Your task to perform on an android device: Add lenovo thinkpad to the cart on costco, then select checkout. Image 0: 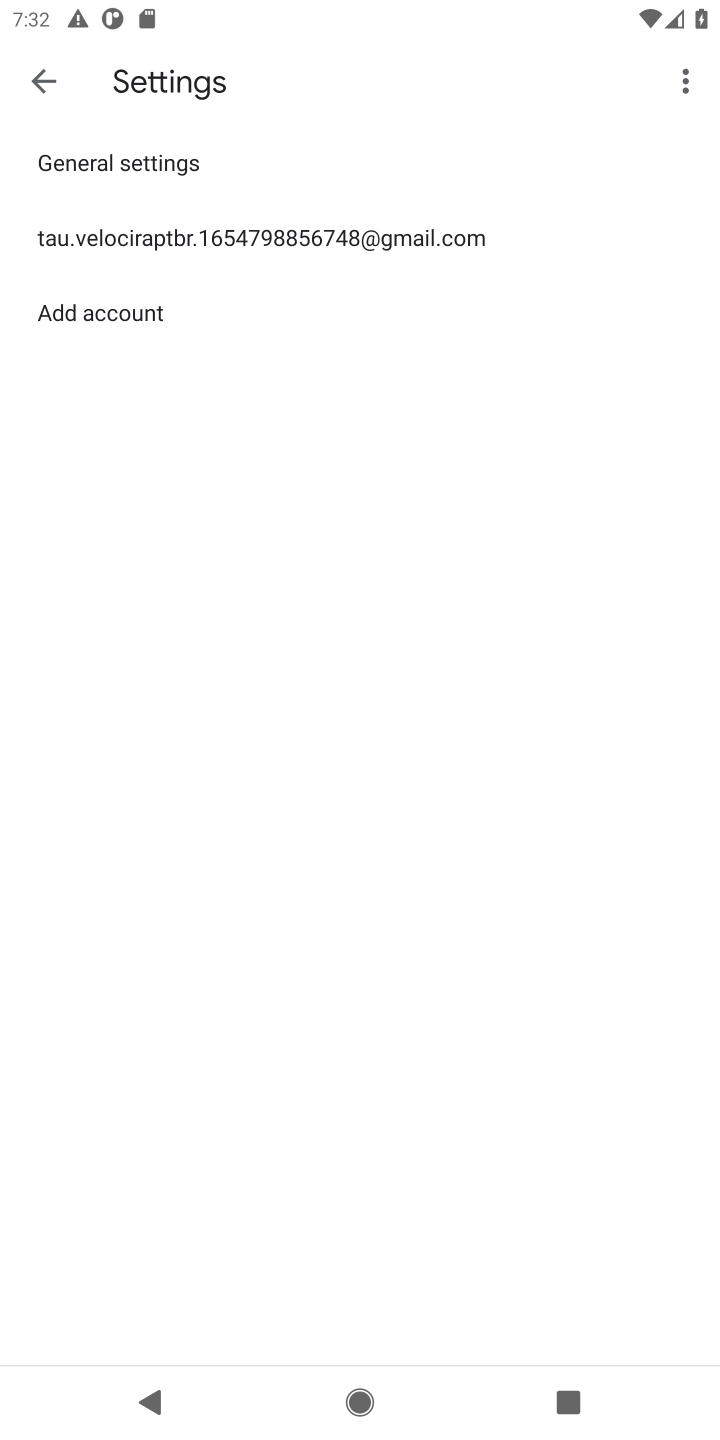
Step 0: press home button
Your task to perform on an android device: Add lenovo thinkpad to the cart on costco, then select checkout. Image 1: 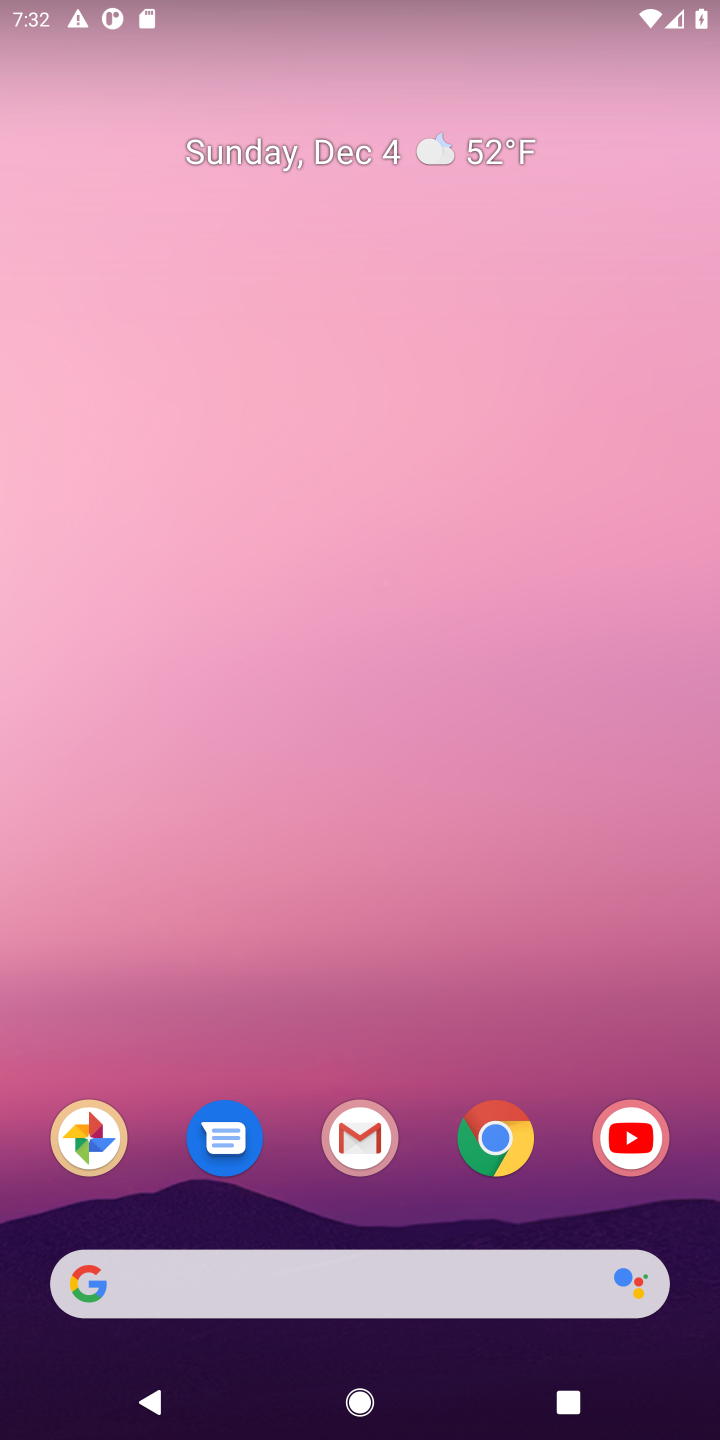
Step 1: click (499, 1124)
Your task to perform on an android device: Add lenovo thinkpad to the cart on costco, then select checkout. Image 2: 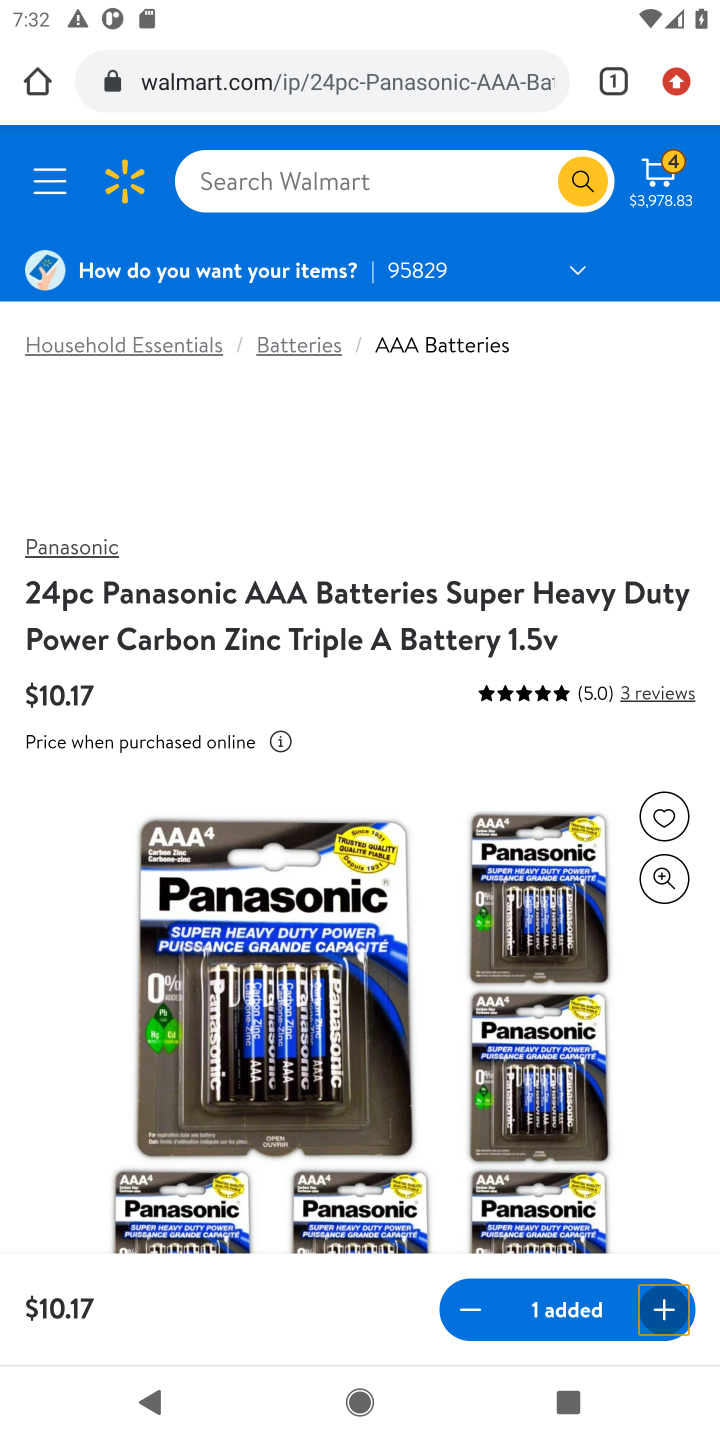
Step 2: click (440, 76)
Your task to perform on an android device: Add lenovo thinkpad to the cart on costco, then select checkout. Image 3: 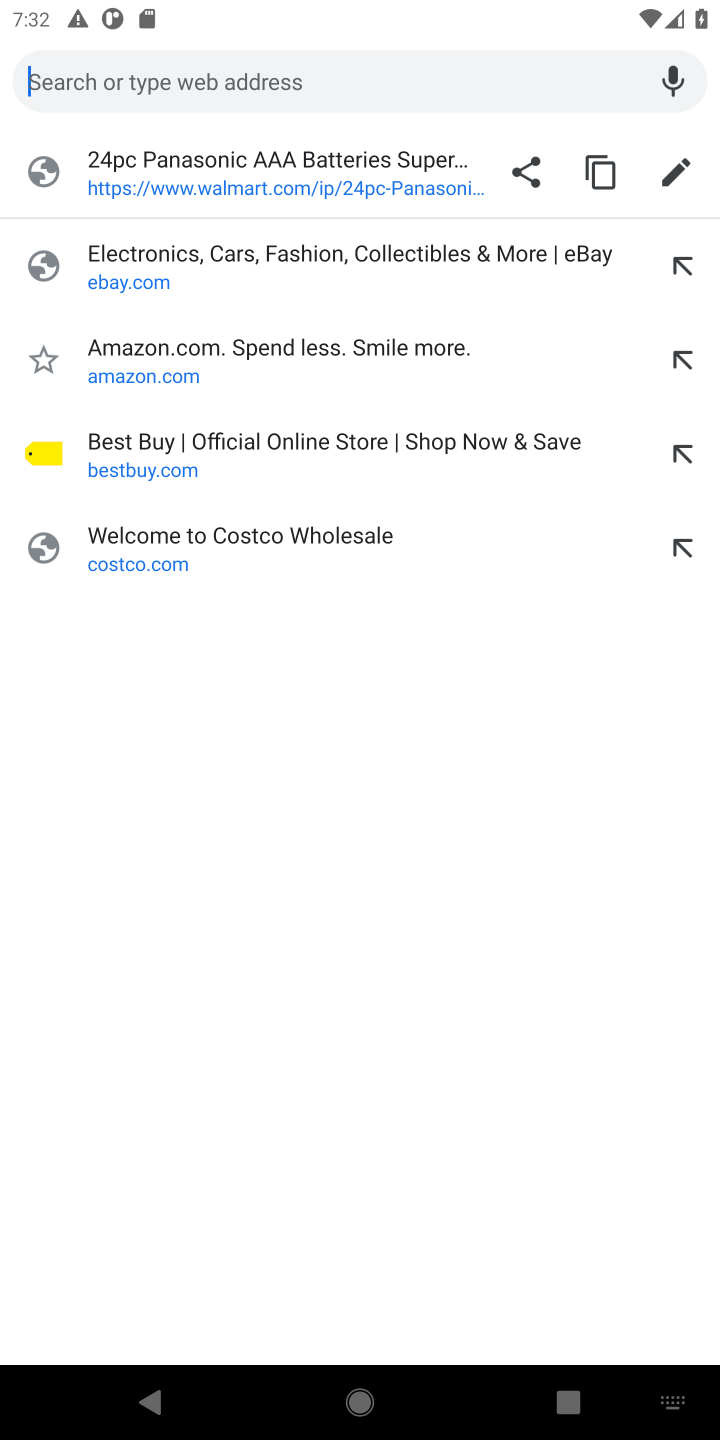
Step 3: click (163, 536)
Your task to perform on an android device: Add lenovo thinkpad to the cart on costco, then select checkout. Image 4: 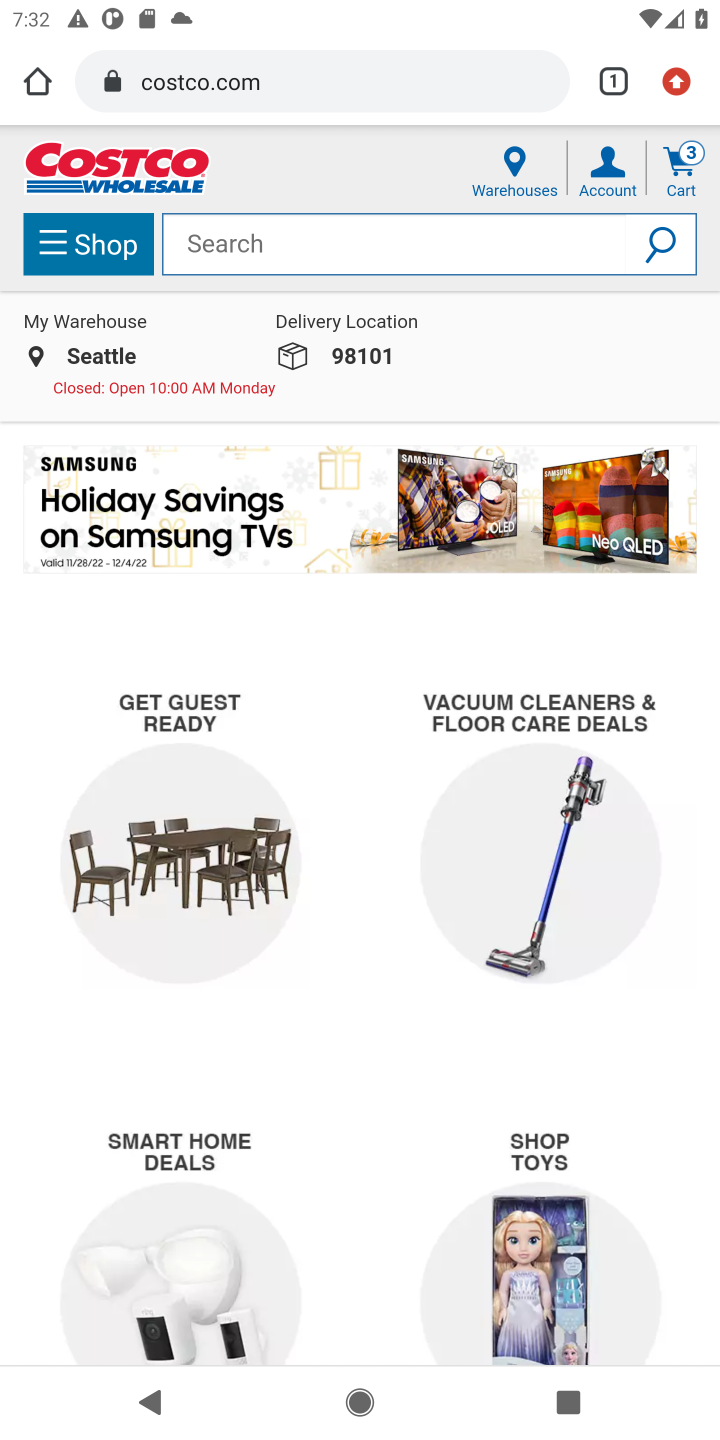
Step 4: click (437, 246)
Your task to perform on an android device: Add lenovo thinkpad to the cart on costco, then select checkout. Image 5: 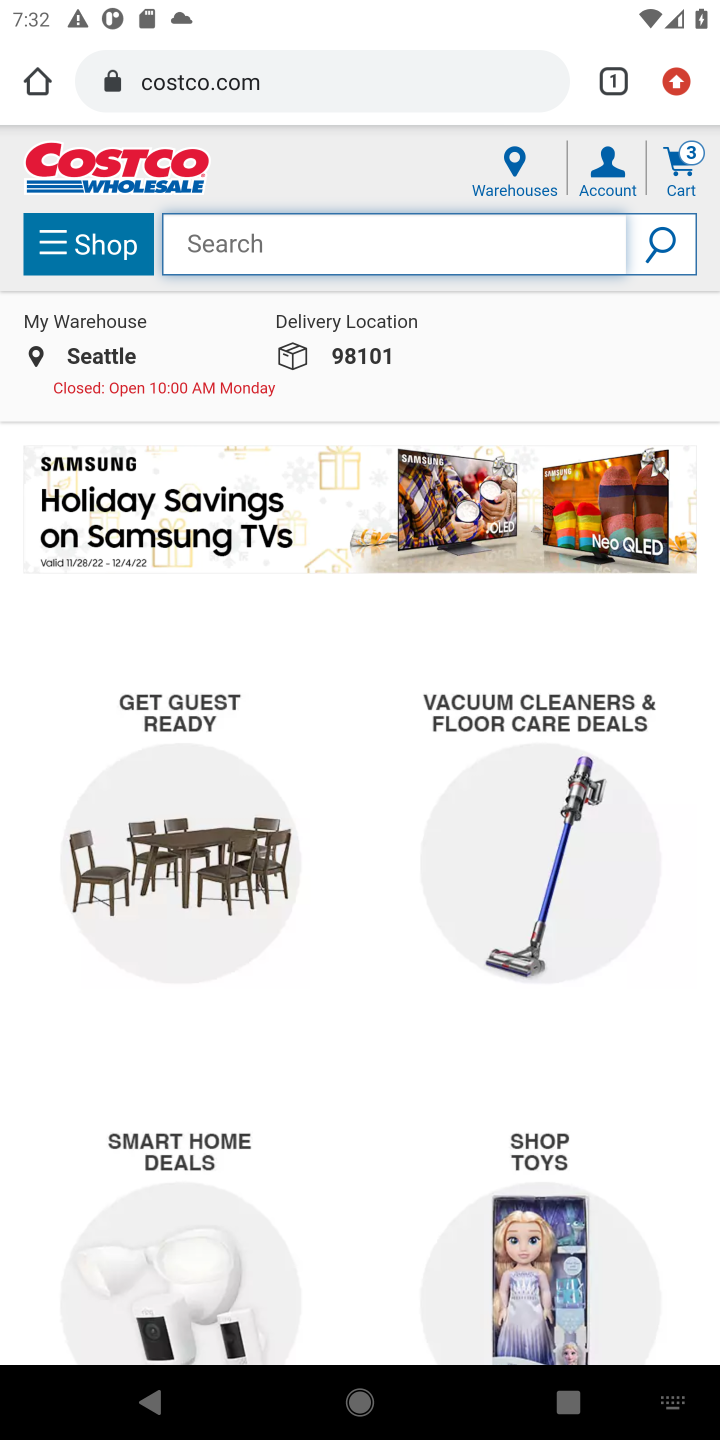
Step 5: press enter
Your task to perform on an android device: Add lenovo thinkpad to the cart on costco, then select checkout. Image 6: 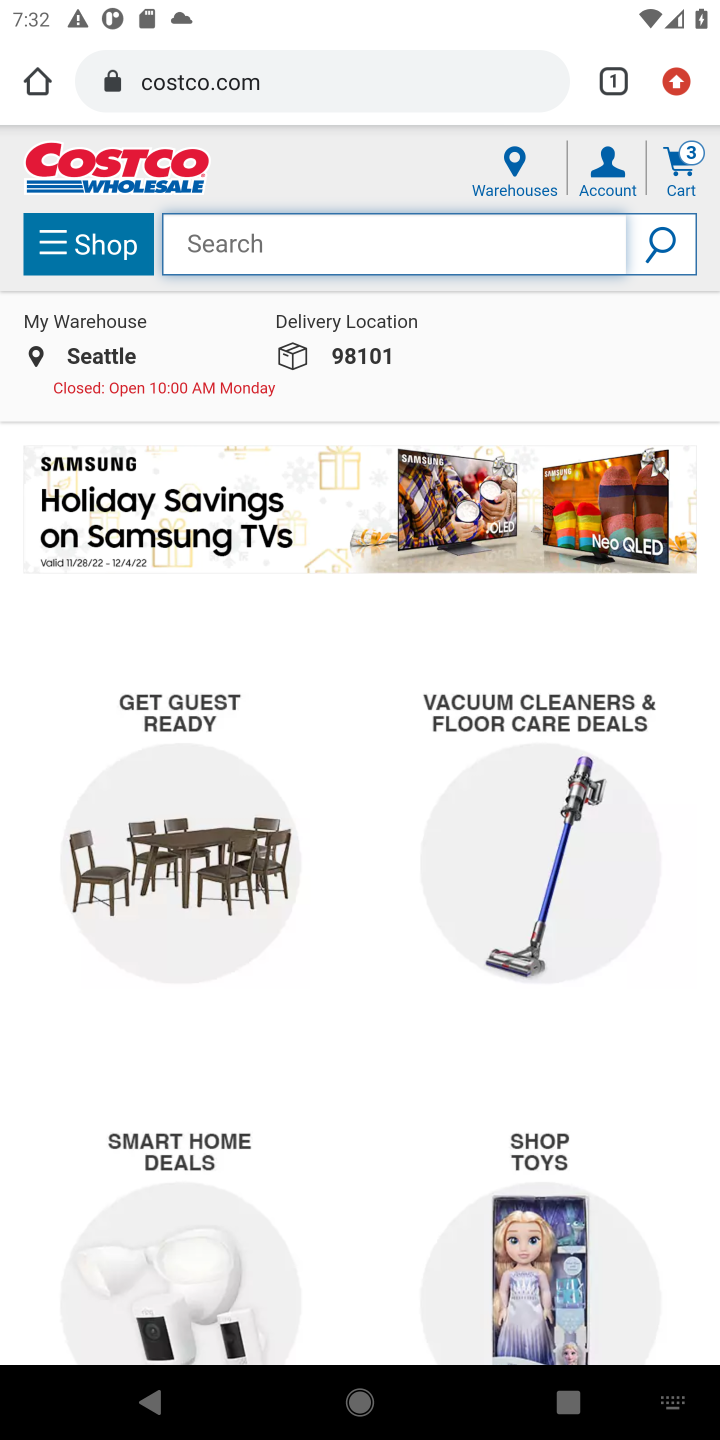
Step 6: type "lenovo thinkpad"
Your task to perform on an android device: Add lenovo thinkpad to the cart on costco, then select checkout. Image 7: 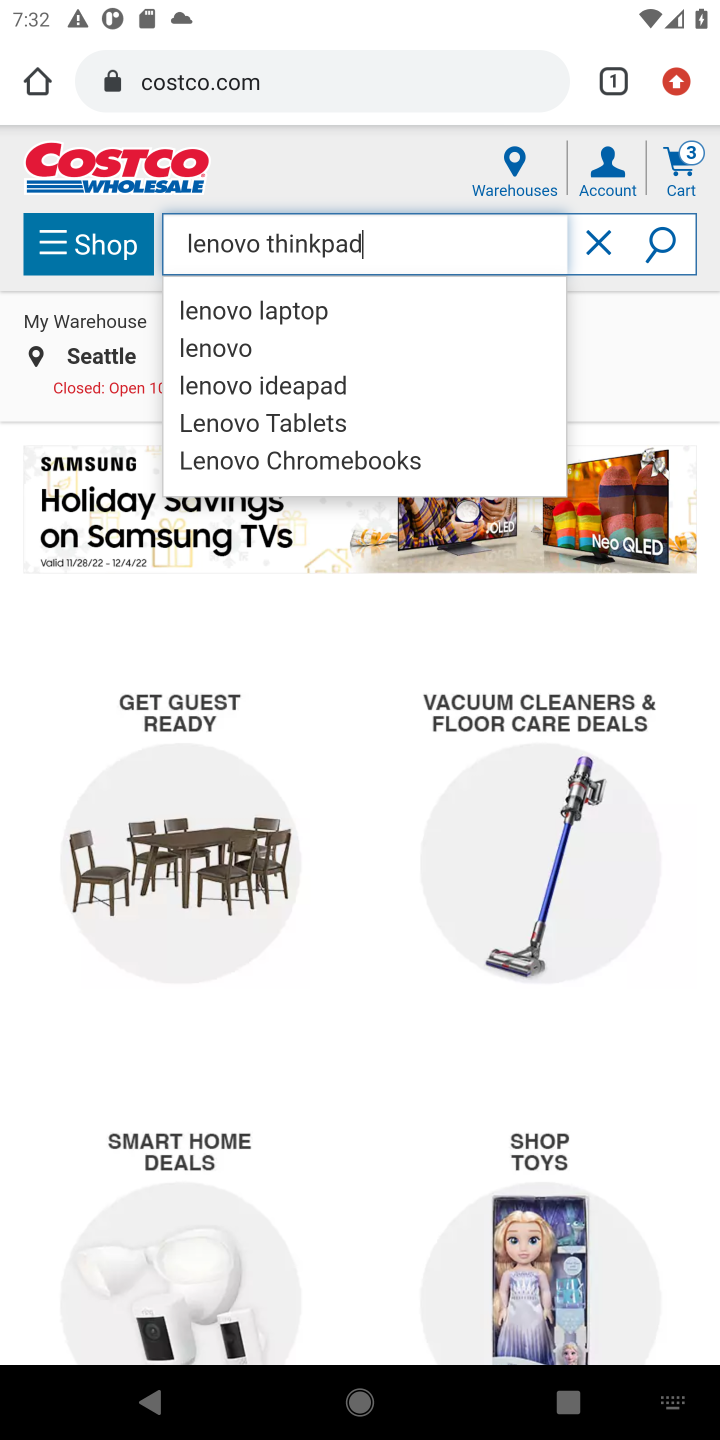
Step 7: click (661, 239)
Your task to perform on an android device: Add lenovo thinkpad to the cart on costco, then select checkout. Image 8: 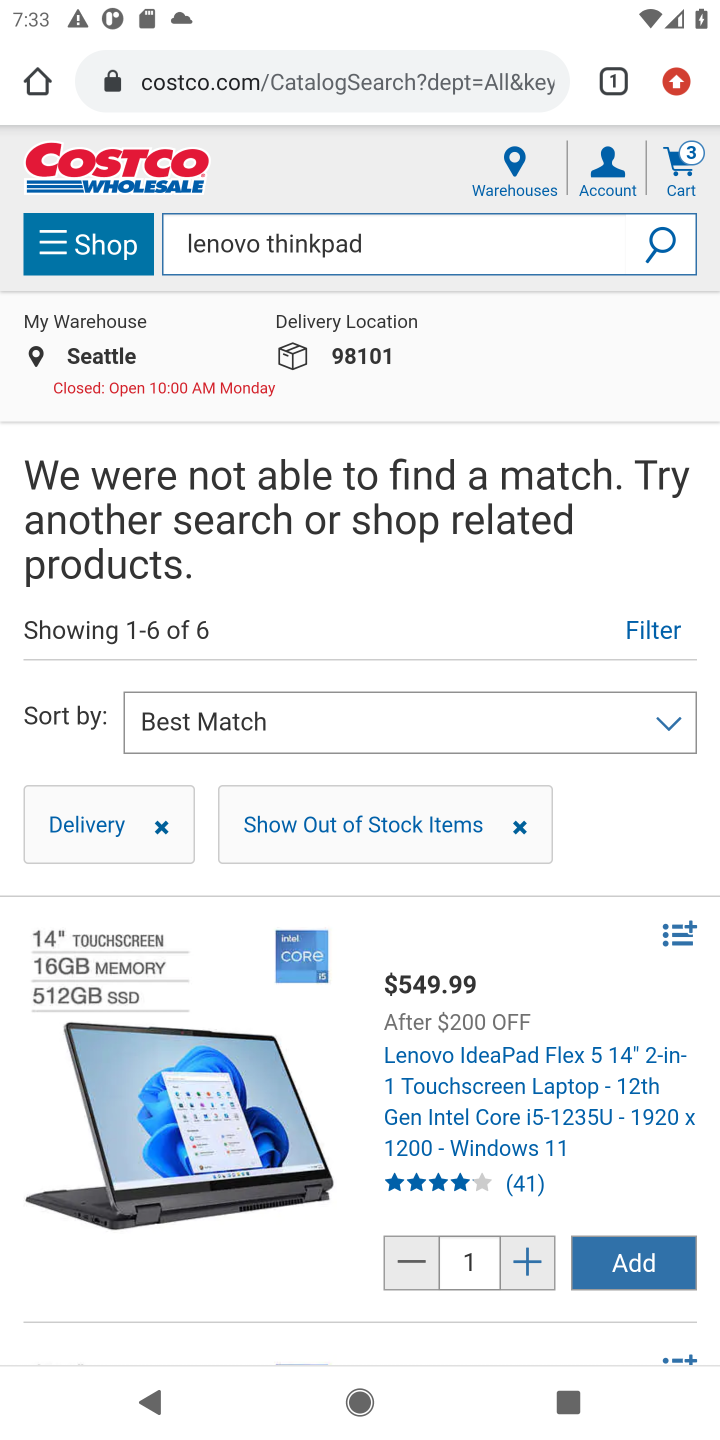
Step 8: task complete